Your task to perform on an android device: open wifi settings Image 0: 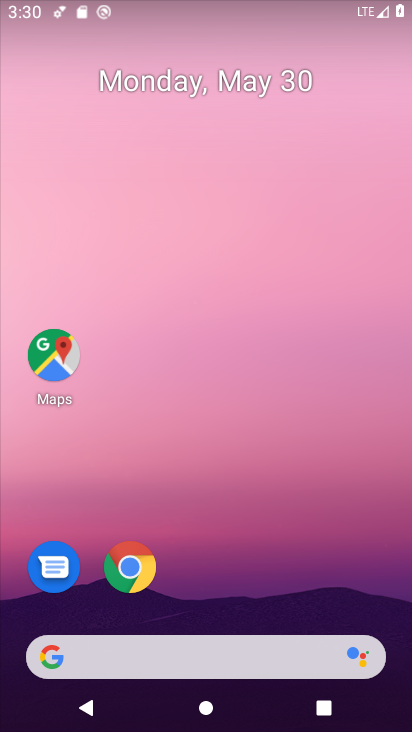
Step 0: click (238, 0)
Your task to perform on an android device: open wifi settings Image 1: 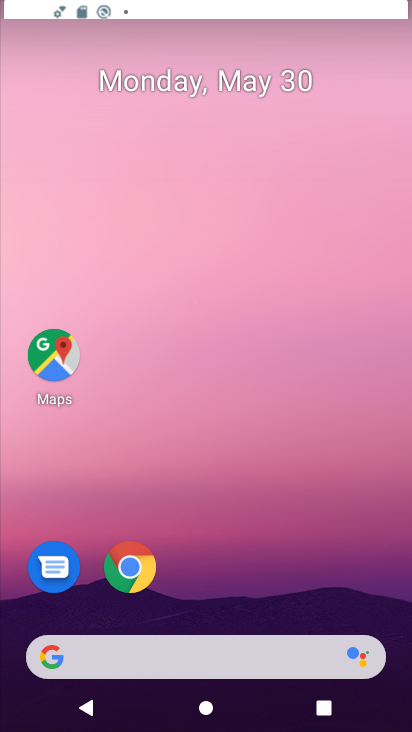
Step 1: drag from (281, 513) to (290, 35)
Your task to perform on an android device: open wifi settings Image 2: 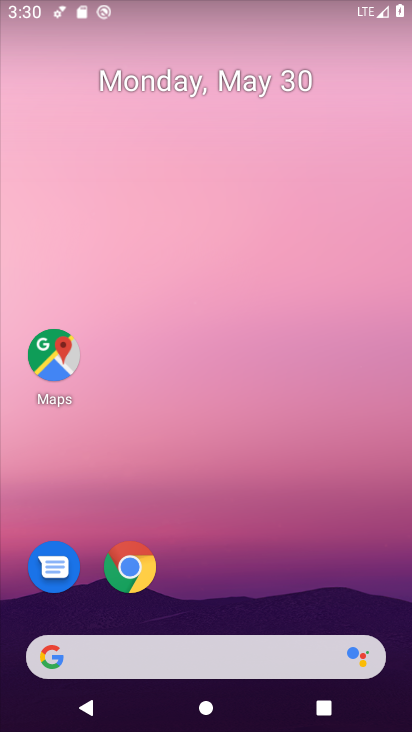
Step 2: drag from (320, 534) to (404, 401)
Your task to perform on an android device: open wifi settings Image 3: 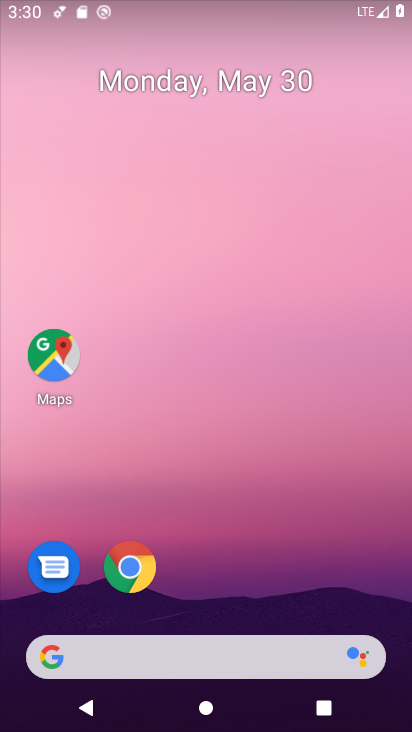
Step 3: drag from (292, 596) to (283, 14)
Your task to perform on an android device: open wifi settings Image 4: 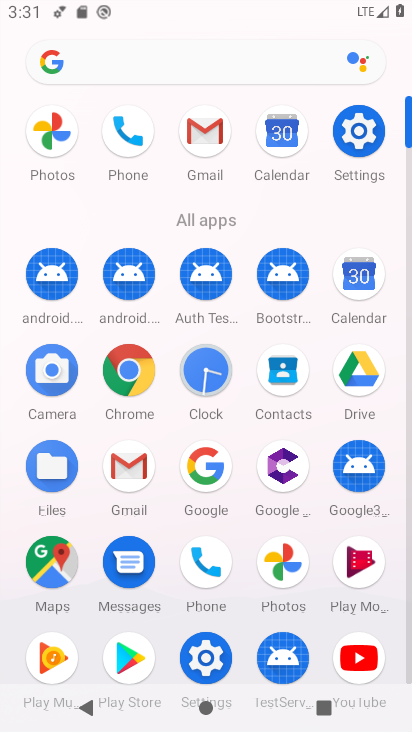
Step 4: click (353, 126)
Your task to perform on an android device: open wifi settings Image 5: 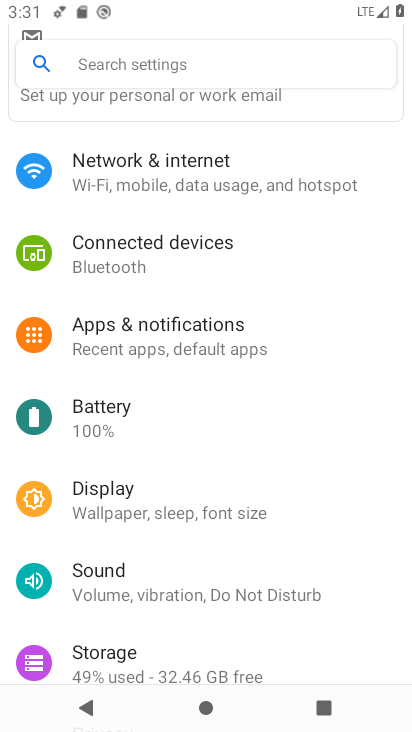
Step 5: drag from (301, 130) to (321, 274)
Your task to perform on an android device: open wifi settings Image 6: 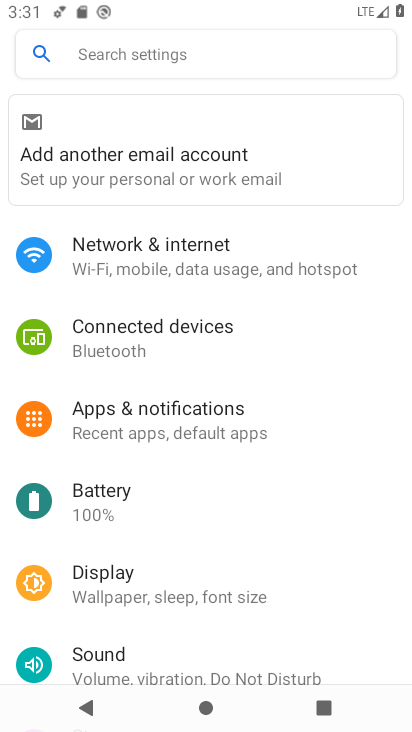
Step 6: click (90, 257)
Your task to perform on an android device: open wifi settings Image 7: 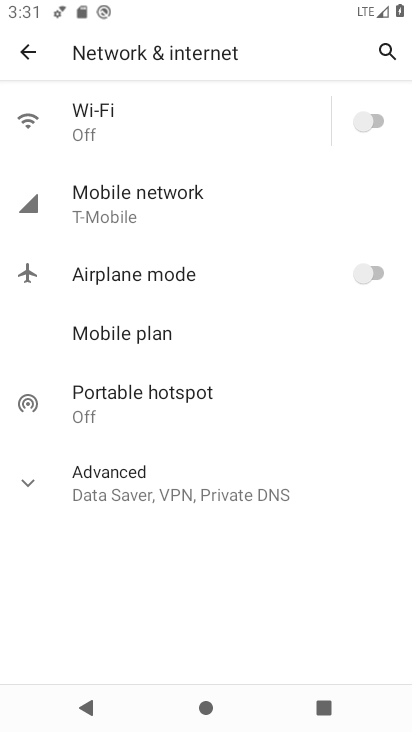
Step 7: click (76, 130)
Your task to perform on an android device: open wifi settings Image 8: 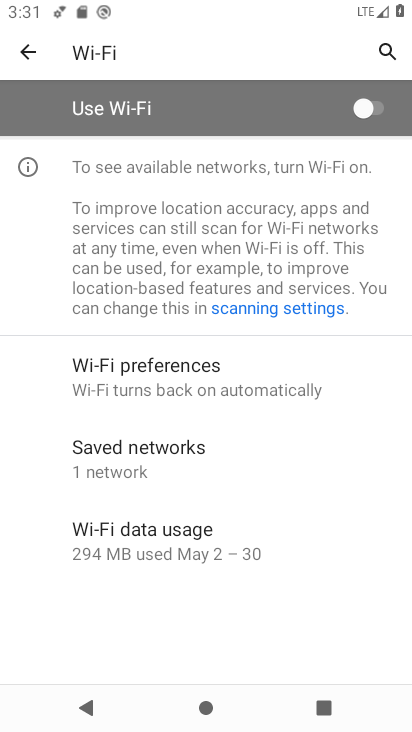
Step 8: task complete